Your task to perform on an android device: set default search engine in the chrome app Image 0: 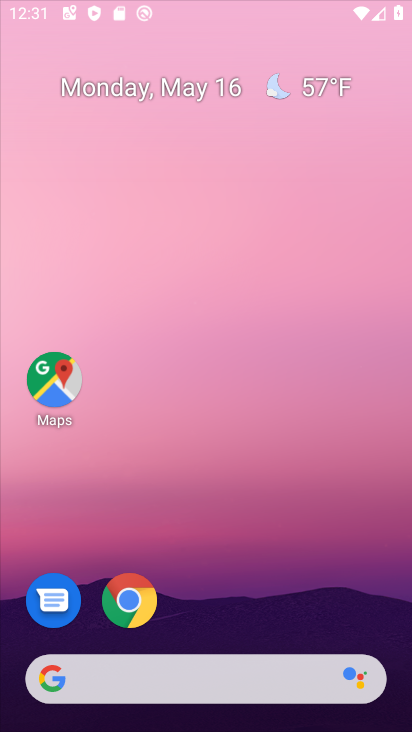
Step 0: click (126, 603)
Your task to perform on an android device: set default search engine in the chrome app Image 1: 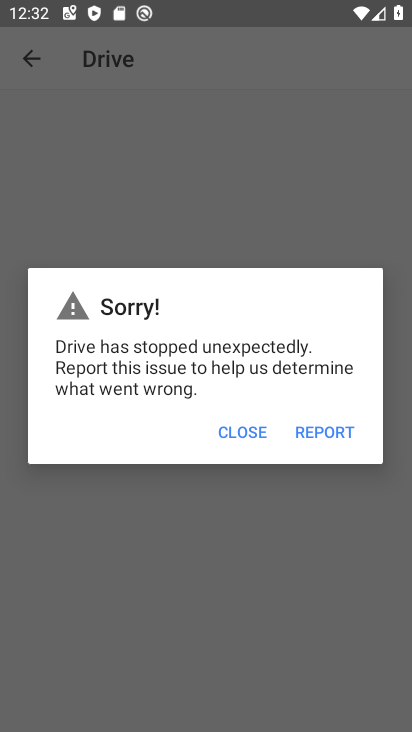
Step 1: press back button
Your task to perform on an android device: set default search engine in the chrome app Image 2: 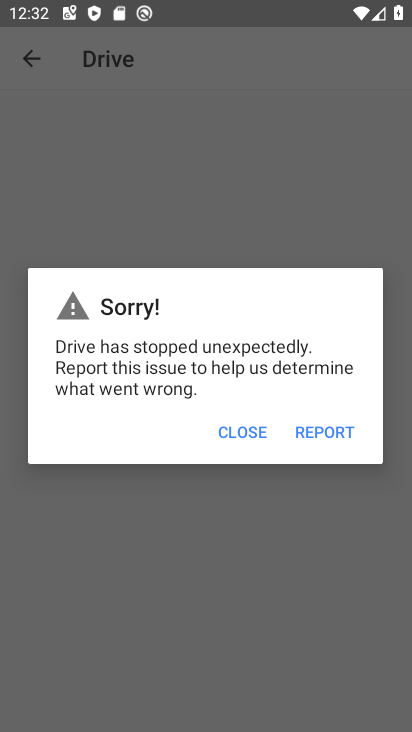
Step 2: press back button
Your task to perform on an android device: set default search engine in the chrome app Image 3: 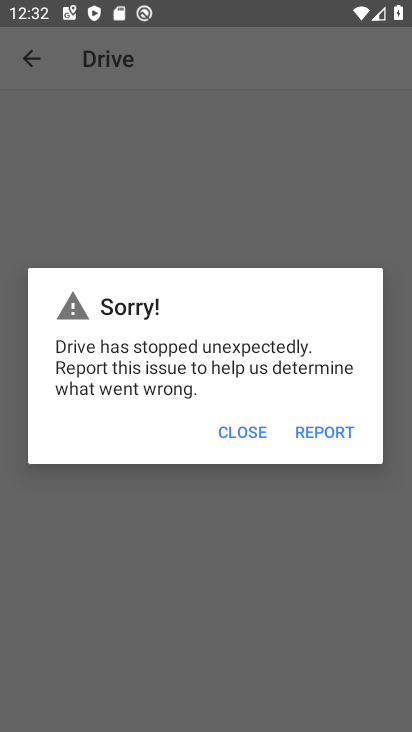
Step 3: press home button
Your task to perform on an android device: set default search engine in the chrome app Image 4: 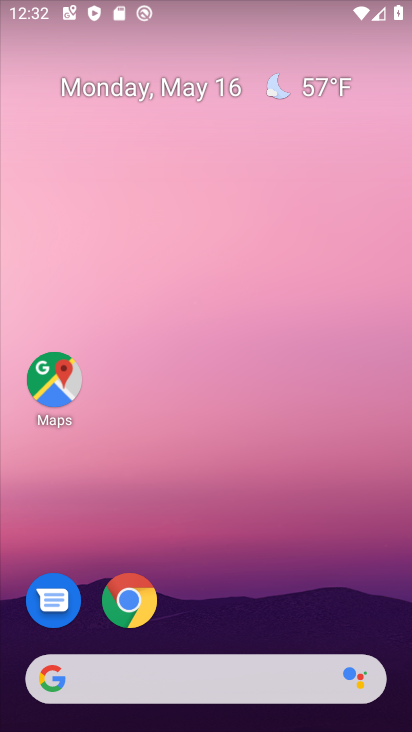
Step 4: click (133, 603)
Your task to perform on an android device: set default search engine in the chrome app Image 5: 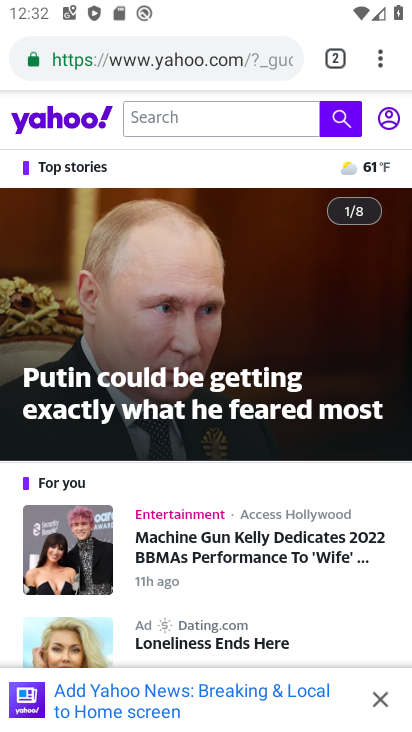
Step 5: click (378, 51)
Your task to perform on an android device: set default search engine in the chrome app Image 6: 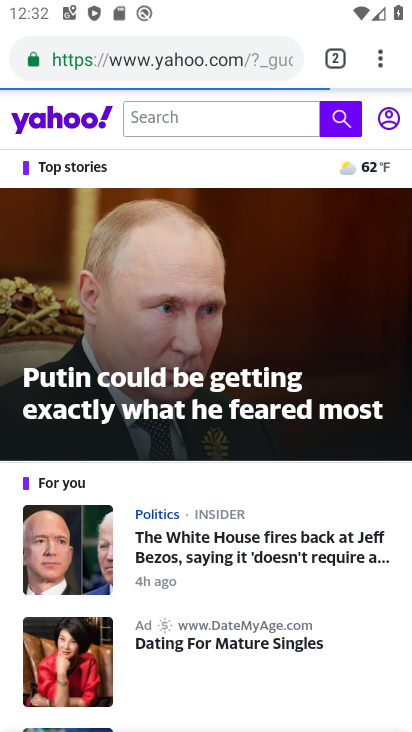
Step 6: drag from (378, 57) to (183, 626)
Your task to perform on an android device: set default search engine in the chrome app Image 7: 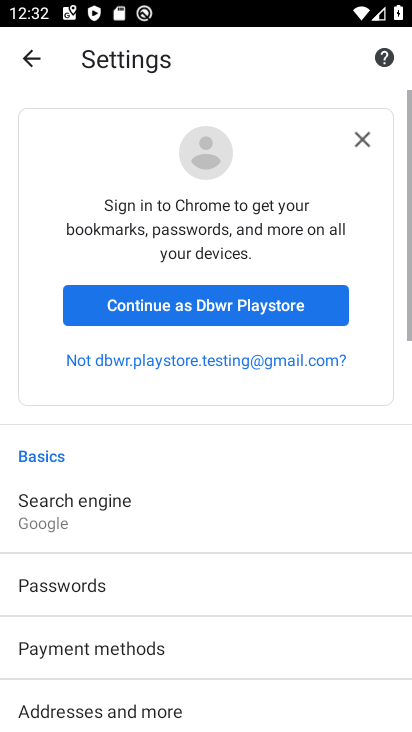
Step 7: click (65, 508)
Your task to perform on an android device: set default search engine in the chrome app Image 8: 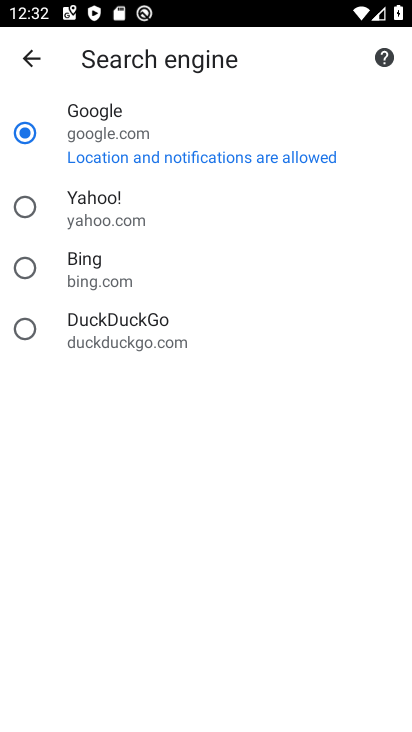
Step 8: click (49, 206)
Your task to perform on an android device: set default search engine in the chrome app Image 9: 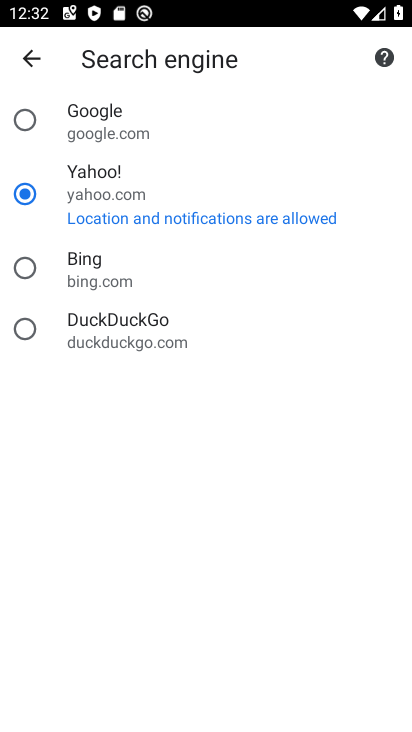
Step 9: task complete